Your task to perform on an android device: Open Google Image 0: 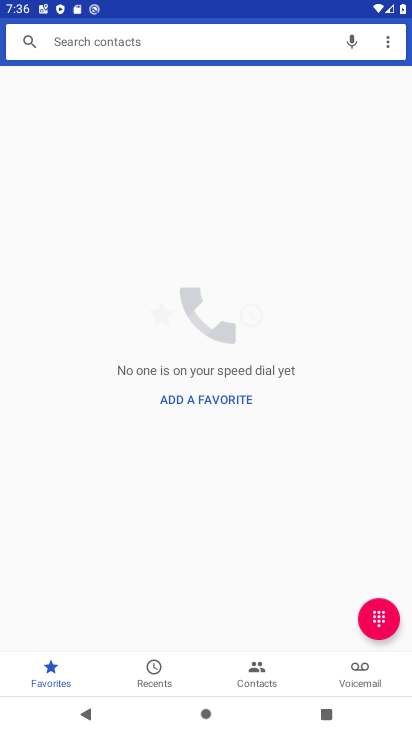
Step 0: press home button
Your task to perform on an android device: Open Google Image 1: 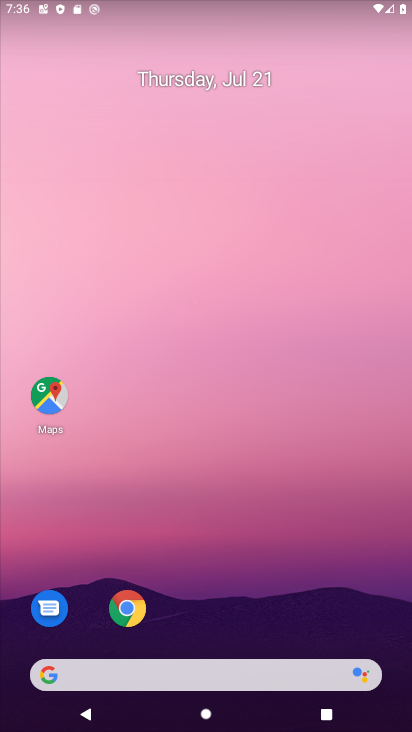
Step 1: drag from (197, 675) to (277, 206)
Your task to perform on an android device: Open Google Image 2: 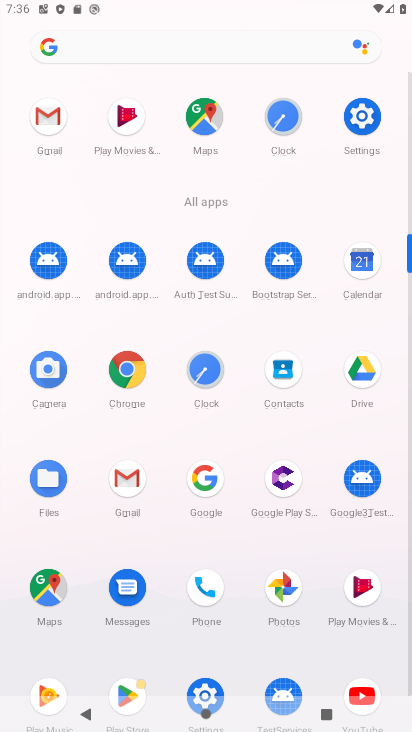
Step 2: click (202, 475)
Your task to perform on an android device: Open Google Image 3: 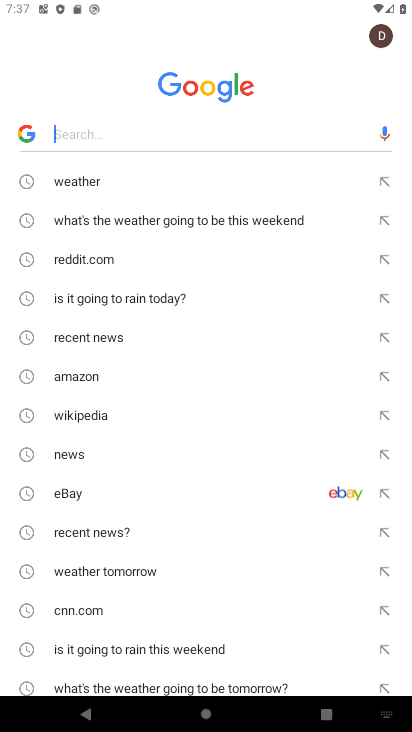
Step 3: task complete